Your task to perform on an android device: turn on improve location accuracy Image 0: 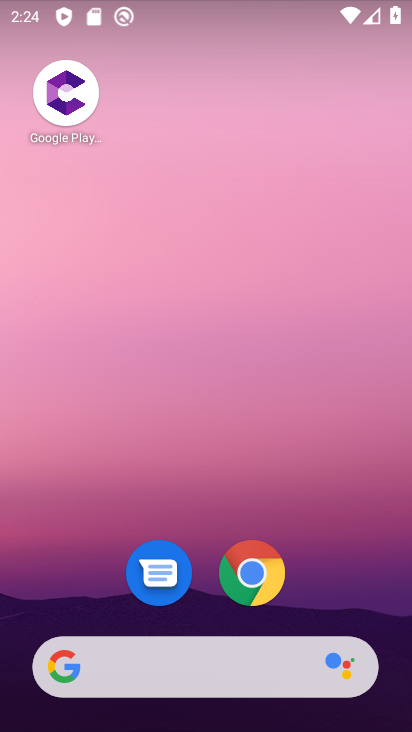
Step 0: drag from (322, 571) to (328, 244)
Your task to perform on an android device: turn on improve location accuracy Image 1: 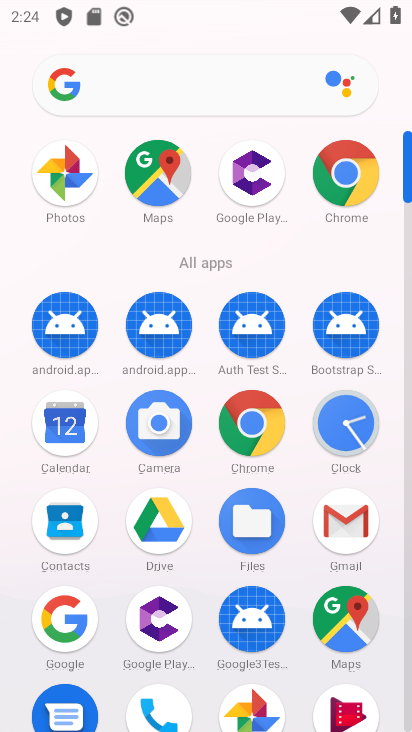
Step 1: drag from (230, 270) to (258, 92)
Your task to perform on an android device: turn on improve location accuracy Image 2: 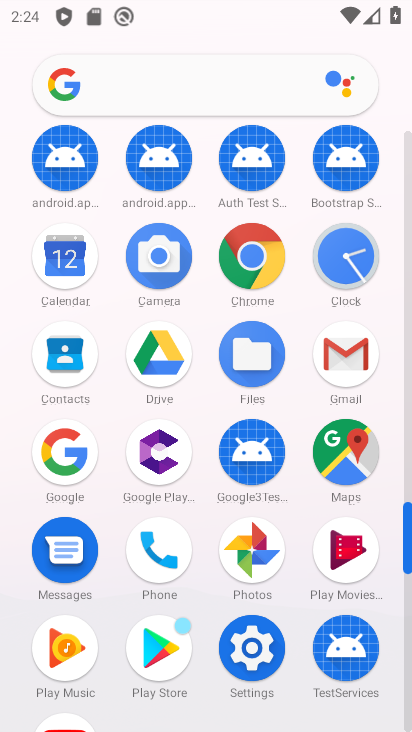
Step 2: click (236, 631)
Your task to perform on an android device: turn on improve location accuracy Image 3: 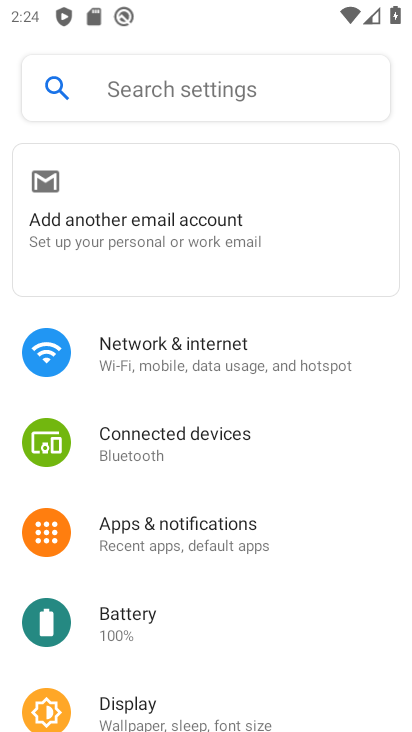
Step 3: drag from (281, 628) to (247, 255)
Your task to perform on an android device: turn on improve location accuracy Image 4: 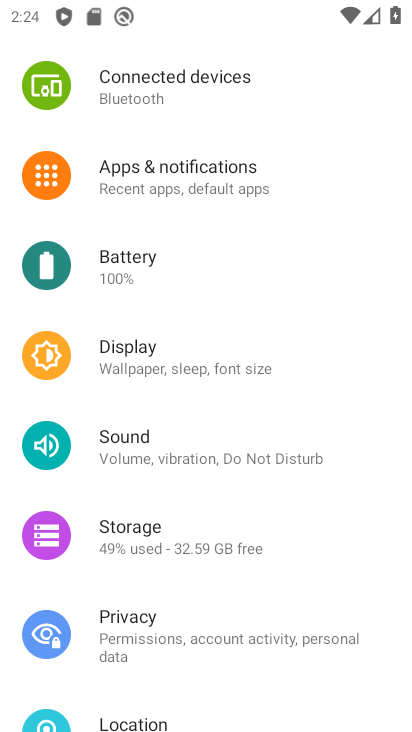
Step 4: click (128, 724)
Your task to perform on an android device: turn on improve location accuracy Image 5: 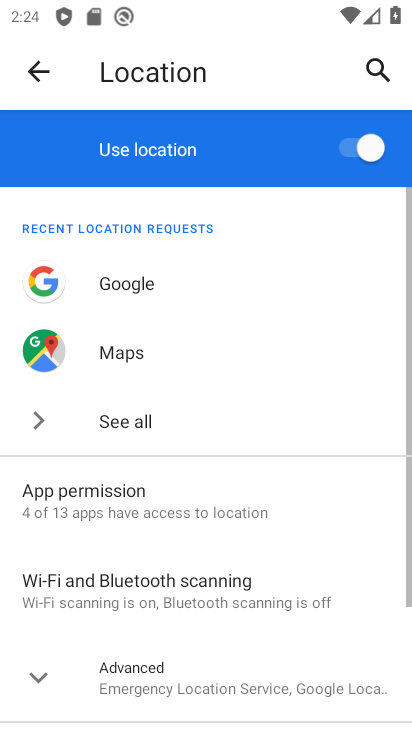
Step 5: task complete